Your task to perform on an android device: toggle sleep mode Image 0: 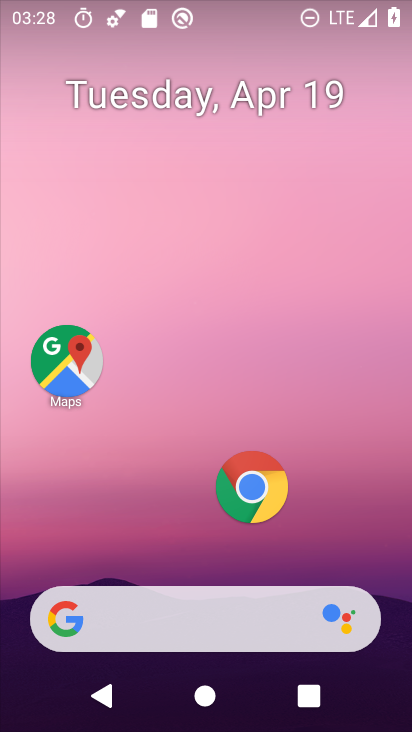
Step 0: drag from (221, 486) to (299, 0)
Your task to perform on an android device: toggle sleep mode Image 1: 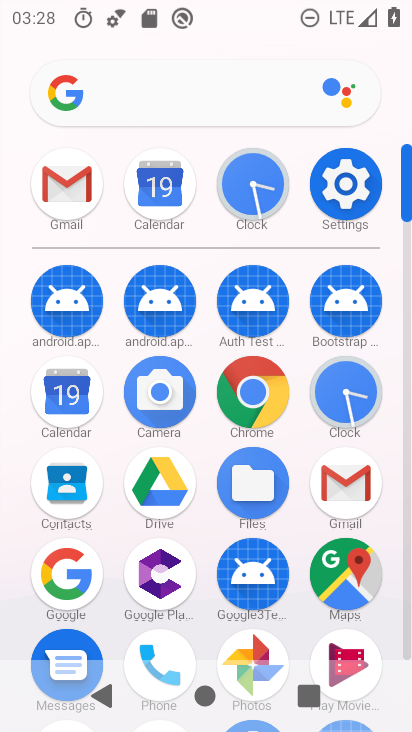
Step 1: click (334, 192)
Your task to perform on an android device: toggle sleep mode Image 2: 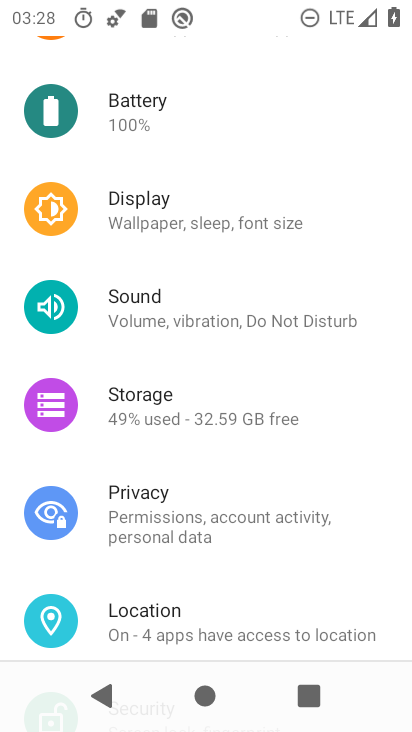
Step 2: drag from (214, 98) to (214, 668)
Your task to perform on an android device: toggle sleep mode Image 3: 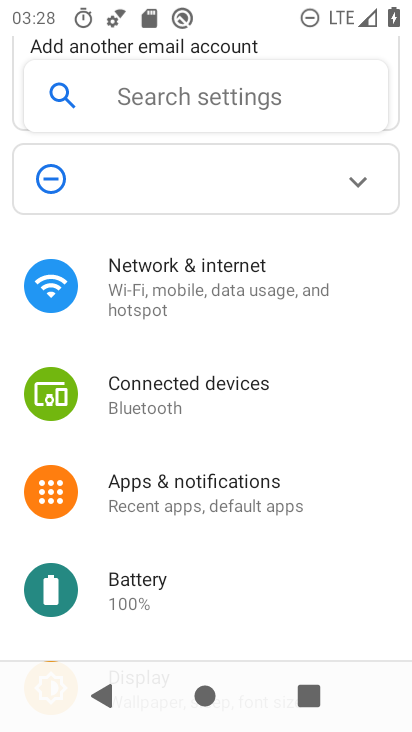
Step 3: click (169, 92)
Your task to perform on an android device: toggle sleep mode Image 4: 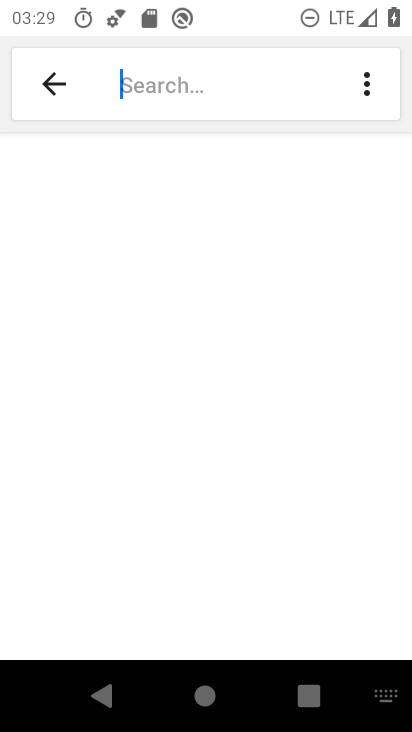
Step 4: type "sleep mode"
Your task to perform on an android device: toggle sleep mode Image 5: 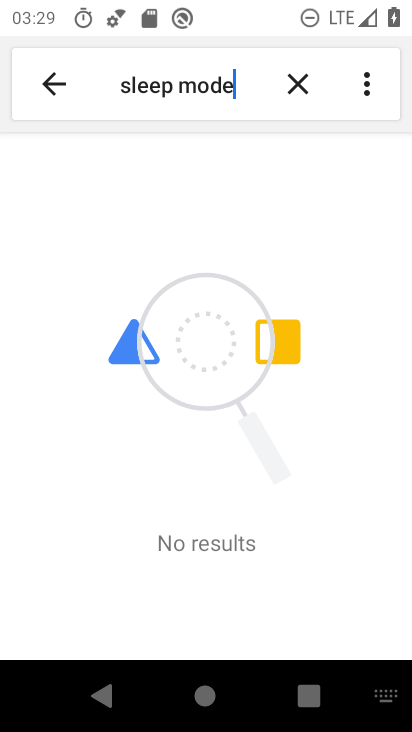
Step 5: task complete